Your task to perform on an android device: Open Wikipedia Image 0: 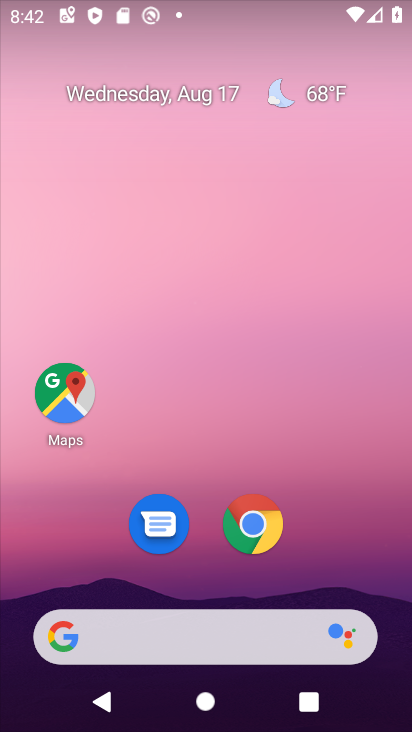
Step 0: click (256, 515)
Your task to perform on an android device: Open Wikipedia Image 1: 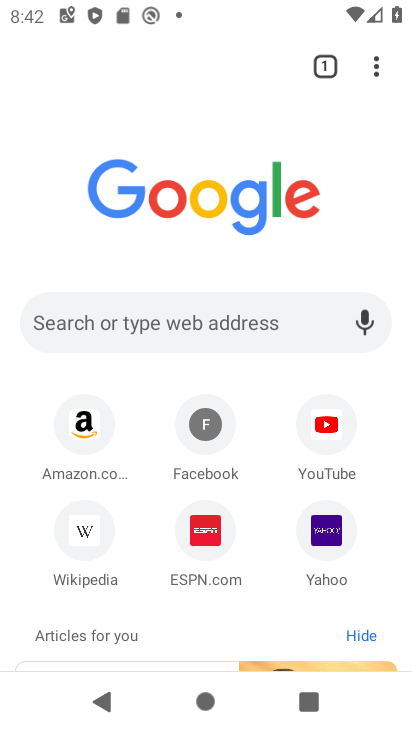
Step 1: click (82, 525)
Your task to perform on an android device: Open Wikipedia Image 2: 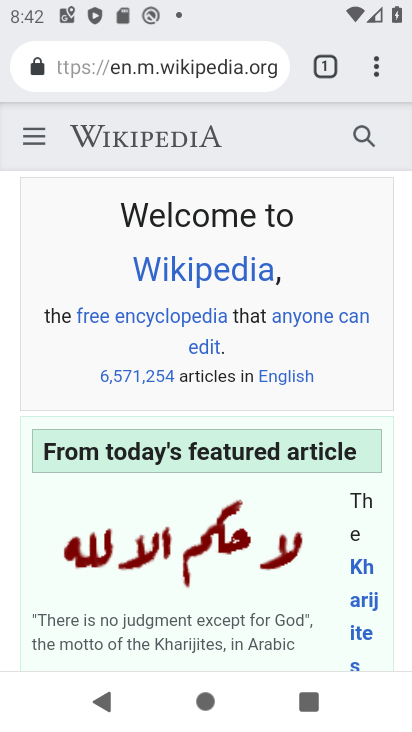
Step 2: task complete